Your task to perform on an android device: set default search engine in the chrome app Image 0: 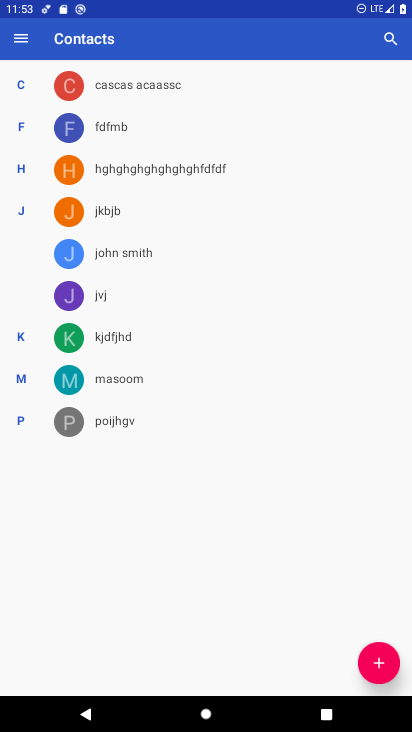
Step 0: press home button
Your task to perform on an android device: set default search engine in the chrome app Image 1: 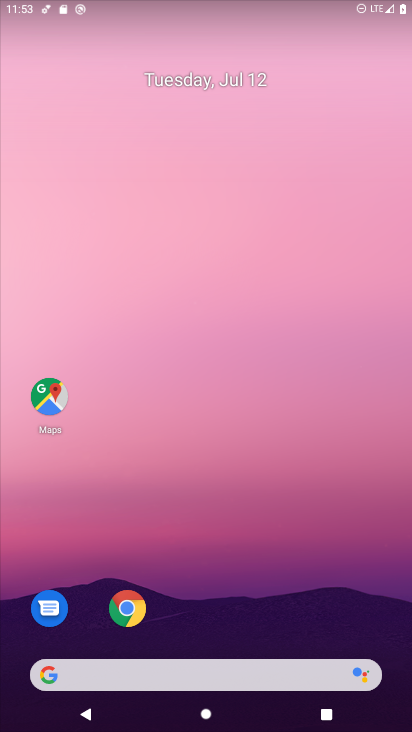
Step 1: click (139, 603)
Your task to perform on an android device: set default search engine in the chrome app Image 2: 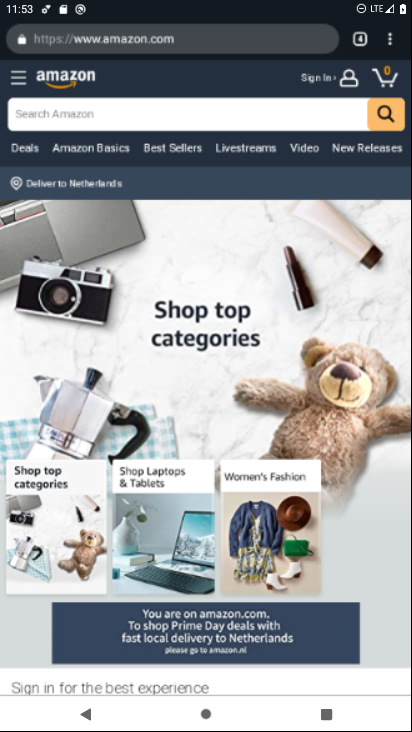
Step 2: click (391, 41)
Your task to perform on an android device: set default search engine in the chrome app Image 3: 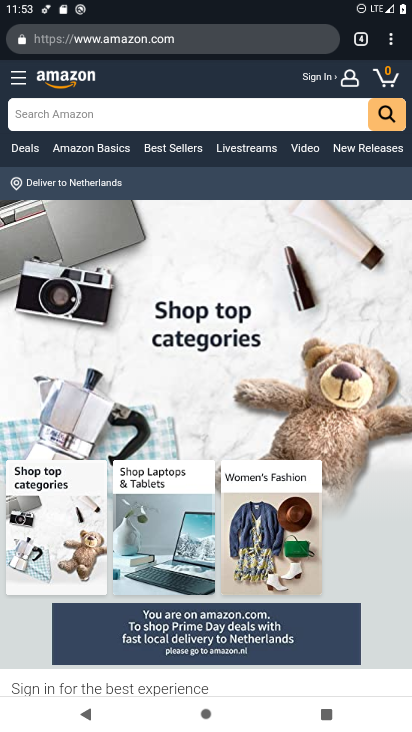
Step 3: click (396, 34)
Your task to perform on an android device: set default search engine in the chrome app Image 4: 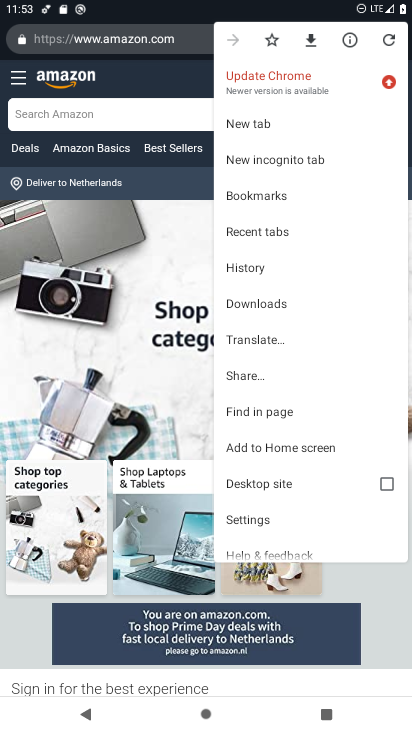
Step 4: click (274, 523)
Your task to perform on an android device: set default search engine in the chrome app Image 5: 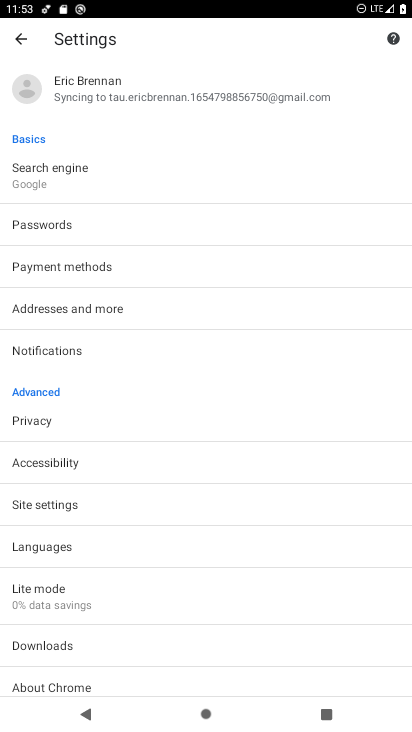
Step 5: click (136, 167)
Your task to perform on an android device: set default search engine in the chrome app Image 6: 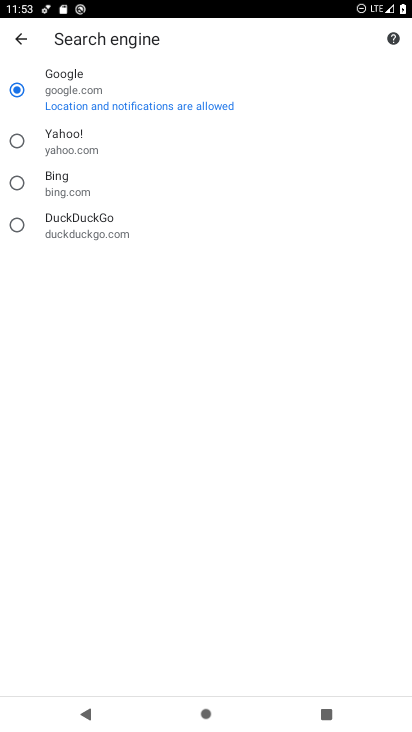
Step 6: click (84, 218)
Your task to perform on an android device: set default search engine in the chrome app Image 7: 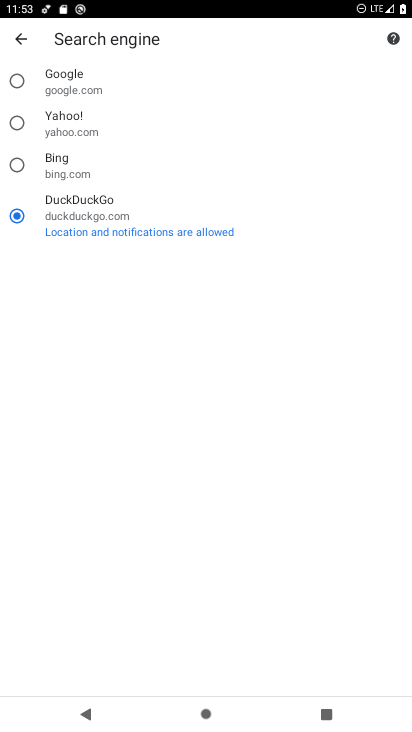
Step 7: task complete